Your task to perform on an android device: toggle data saver in the chrome app Image 0: 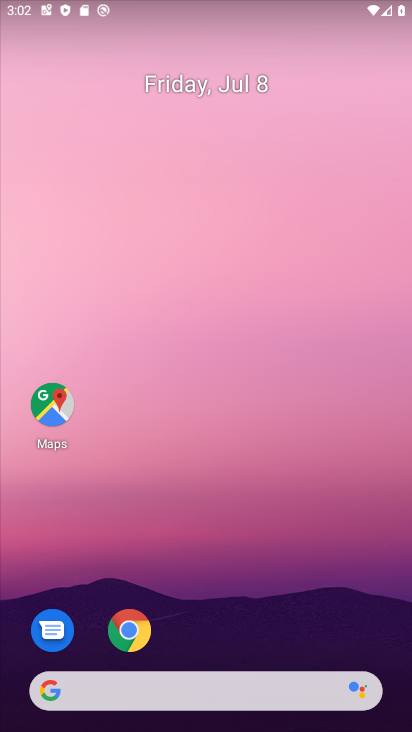
Step 0: click (150, 635)
Your task to perform on an android device: toggle data saver in the chrome app Image 1: 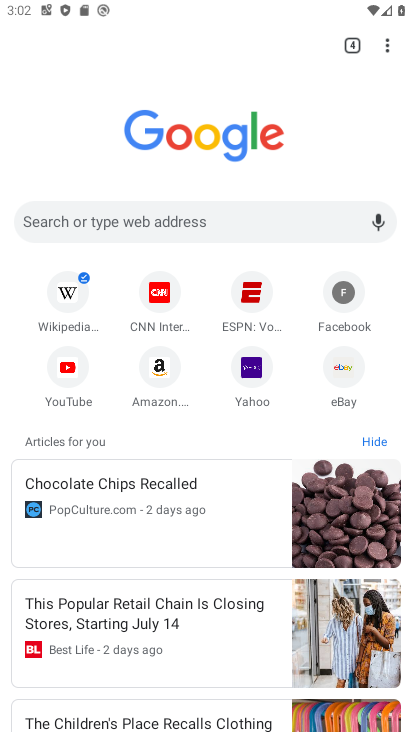
Step 1: click (386, 54)
Your task to perform on an android device: toggle data saver in the chrome app Image 2: 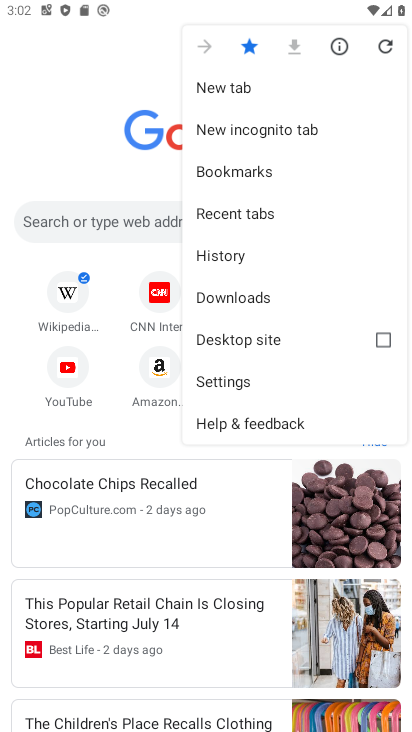
Step 2: click (274, 385)
Your task to perform on an android device: toggle data saver in the chrome app Image 3: 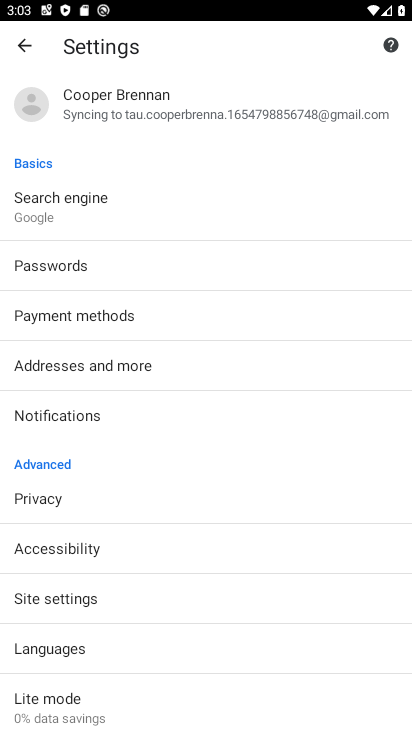
Step 3: drag from (186, 567) to (178, 452)
Your task to perform on an android device: toggle data saver in the chrome app Image 4: 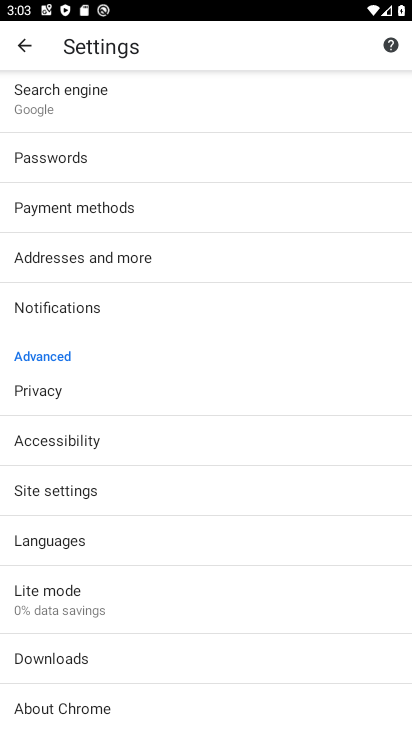
Step 4: click (59, 617)
Your task to perform on an android device: toggle data saver in the chrome app Image 5: 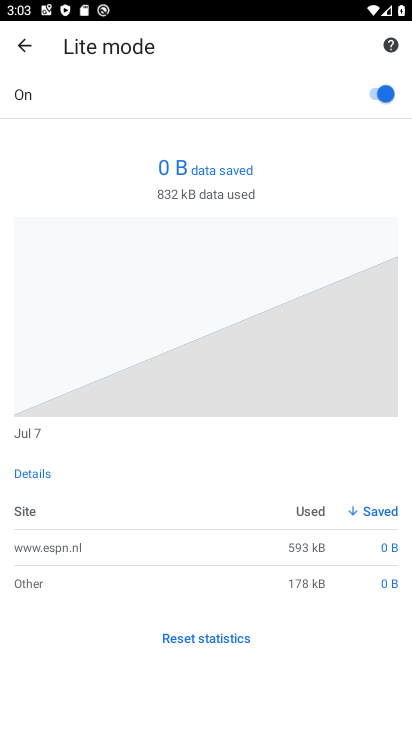
Step 5: click (382, 100)
Your task to perform on an android device: toggle data saver in the chrome app Image 6: 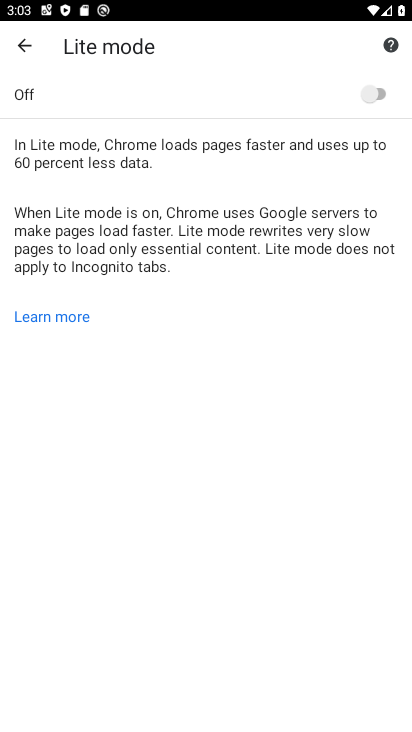
Step 6: task complete